Your task to perform on an android device: When is my next meeting? Image 0: 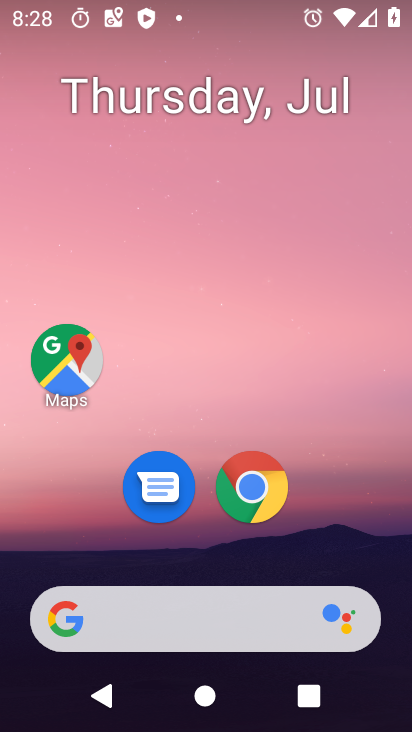
Step 0: drag from (324, 551) to (338, 215)
Your task to perform on an android device: When is my next meeting? Image 1: 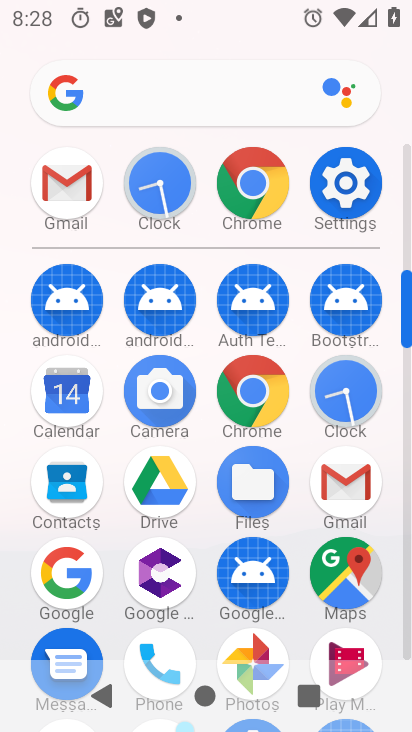
Step 1: click (54, 390)
Your task to perform on an android device: When is my next meeting? Image 2: 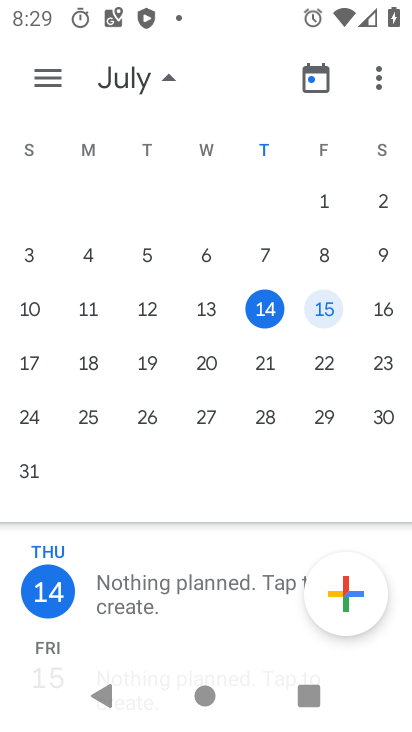
Step 2: click (63, 82)
Your task to perform on an android device: When is my next meeting? Image 3: 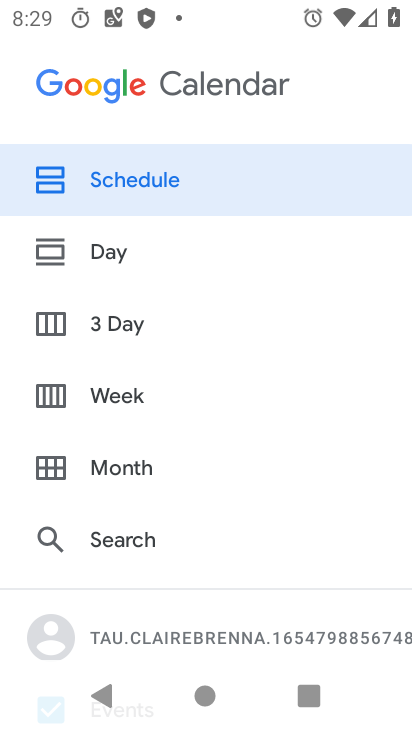
Step 3: task complete